Your task to perform on an android device: turn on bluetooth scan Image 0: 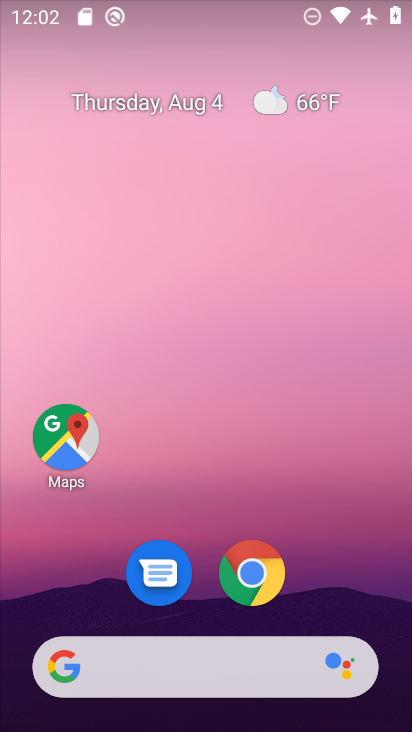
Step 0: drag from (366, 559) to (397, 110)
Your task to perform on an android device: turn on bluetooth scan Image 1: 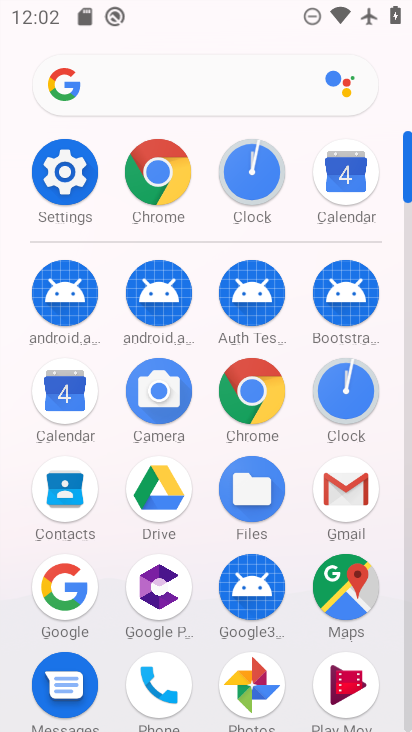
Step 1: click (36, 168)
Your task to perform on an android device: turn on bluetooth scan Image 2: 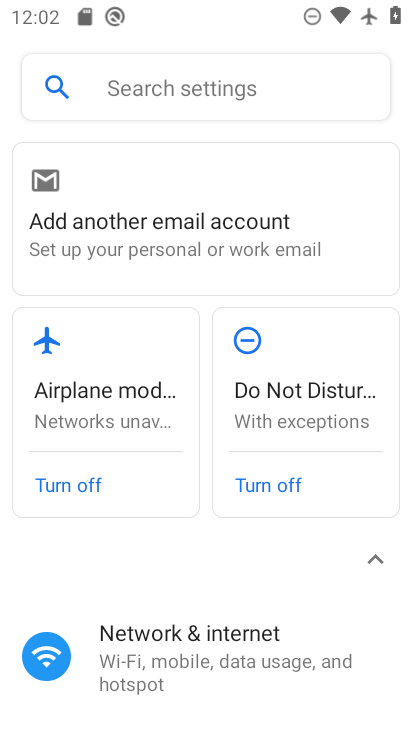
Step 2: drag from (227, 592) to (282, 158)
Your task to perform on an android device: turn on bluetooth scan Image 3: 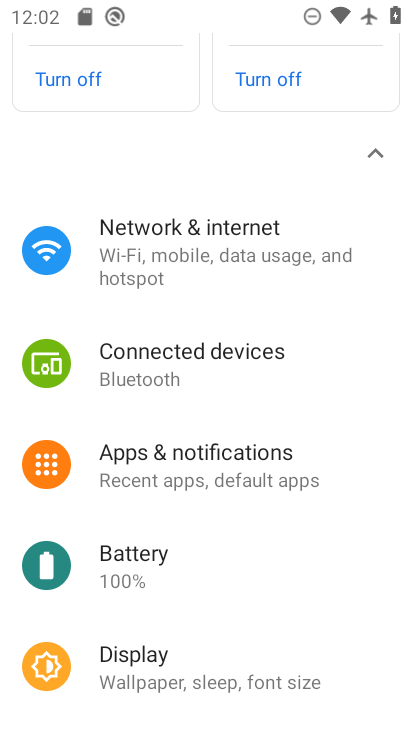
Step 3: drag from (274, 603) to (315, 252)
Your task to perform on an android device: turn on bluetooth scan Image 4: 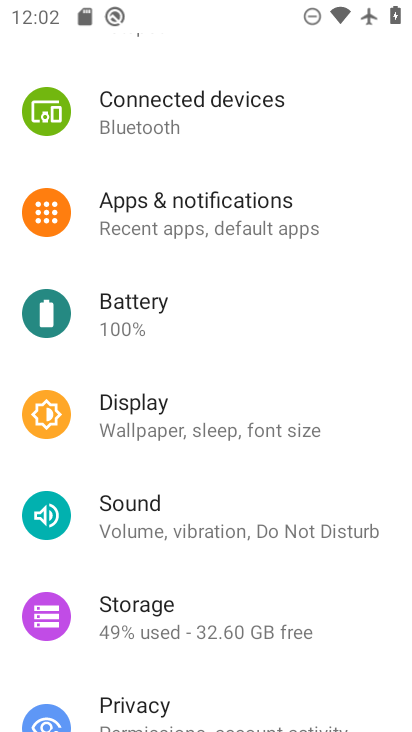
Step 4: drag from (228, 600) to (271, 309)
Your task to perform on an android device: turn on bluetooth scan Image 5: 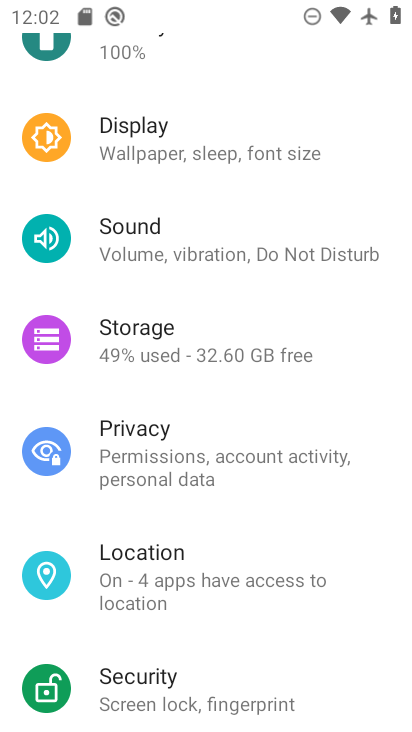
Step 5: click (167, 570)
Your task to perform on an android device: turn on bluetooth scan Image 6: 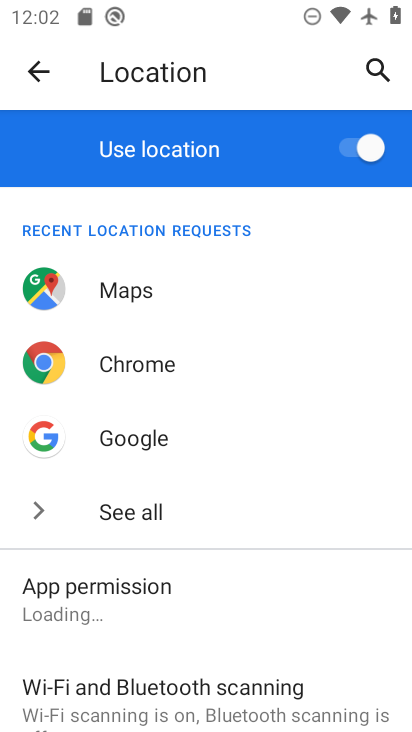
Step 6: drag from (237, 606) to (261, 221)
Your task to perform on an android device: turn on bluetooth scan Image 7: 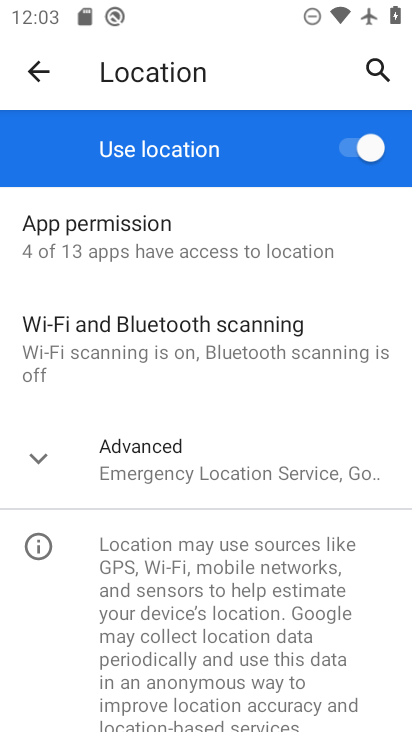
Step 7: click (194, 348)
Your task to perform on an android device: turn on bluetooth scan Image 8: 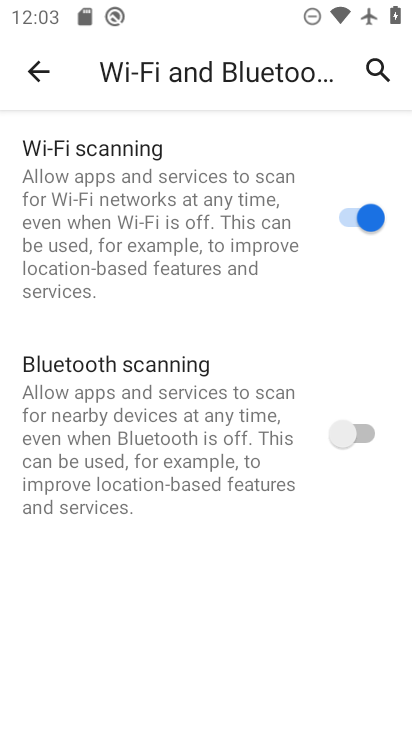
Step 8: click (362, 422)
Your task to perform on an android device: turn on bluetooth scan Image 9: 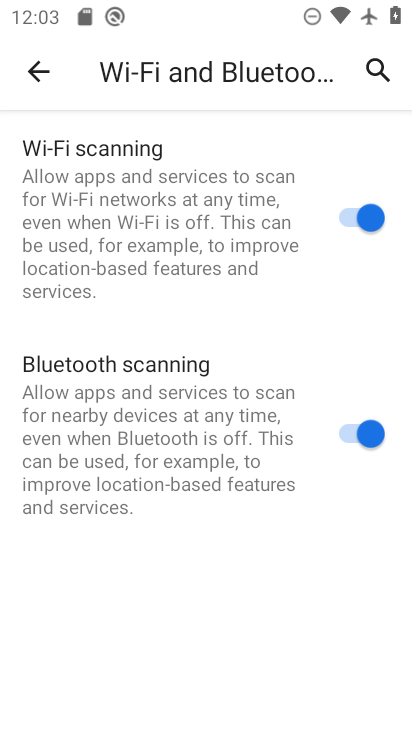
Step 9: task complete